Your task to perform on an android device: What's the weather? Image 0: 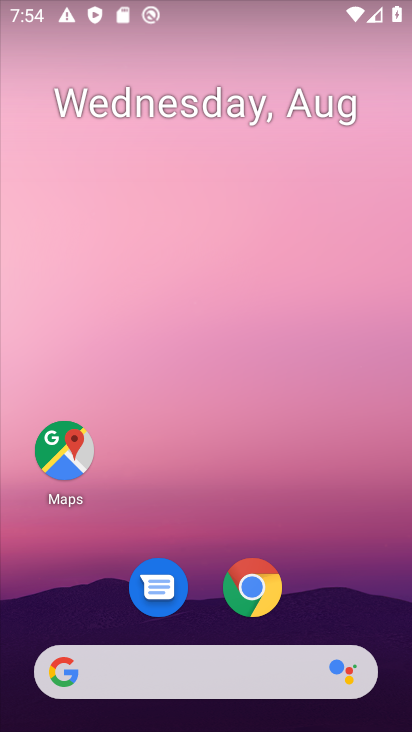
Step 0: click (119, 658)
Your task to perform on an android device: What's the weather? Image 1: 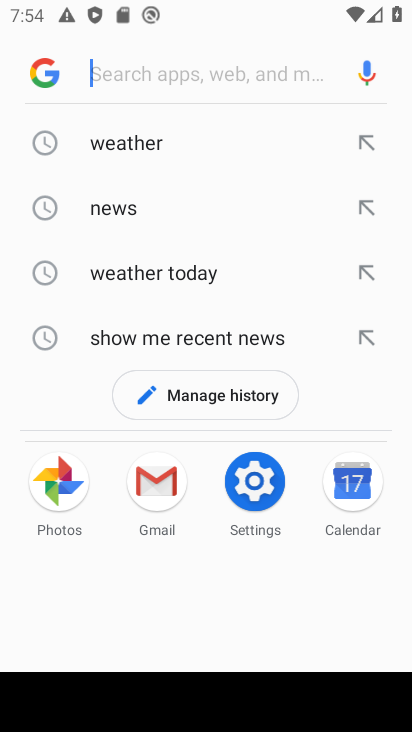
Step 1: type "What's the weather?"
Your task to perform on an android device: What's the weather? Image 2: 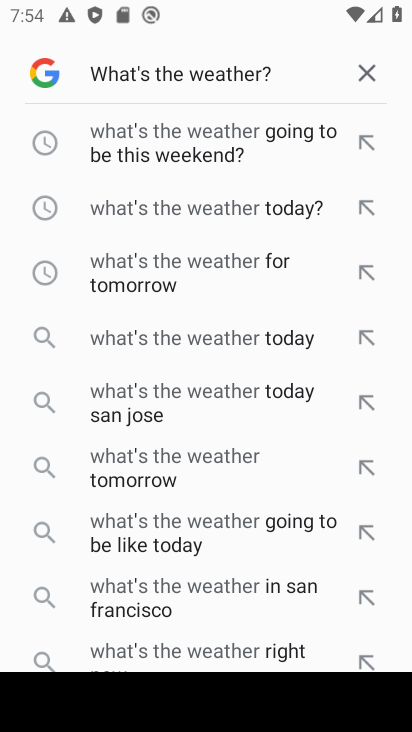
Step 2: type ""
Your task to perform on an android device: What's the weather? Image 3: 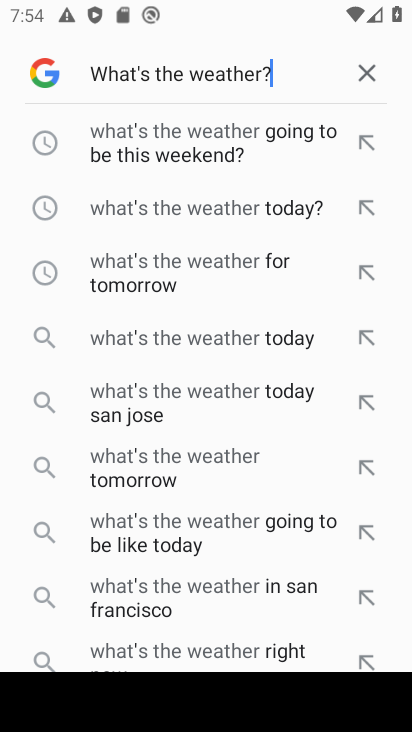
Step 3: type ""
Your task to perform on an android device: What's the weather? Image 4: 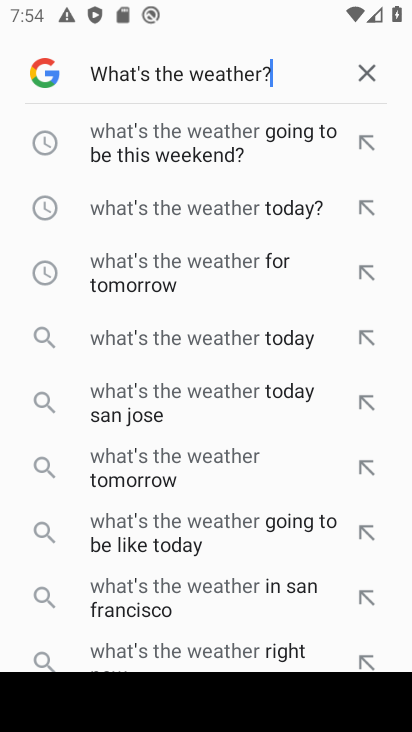
Step 4: task complete